Your task to perform on an android device: search for starred emails in the gmail app Image 0: 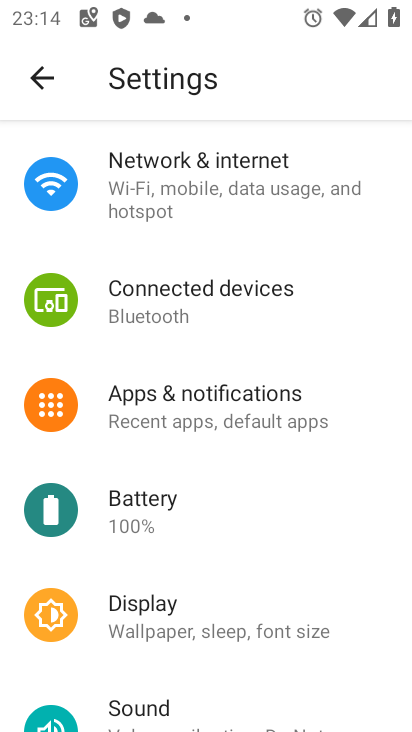
Step 0: press home button
Your task to perform on an android device: search for starred emails in the gmail app Image 1: 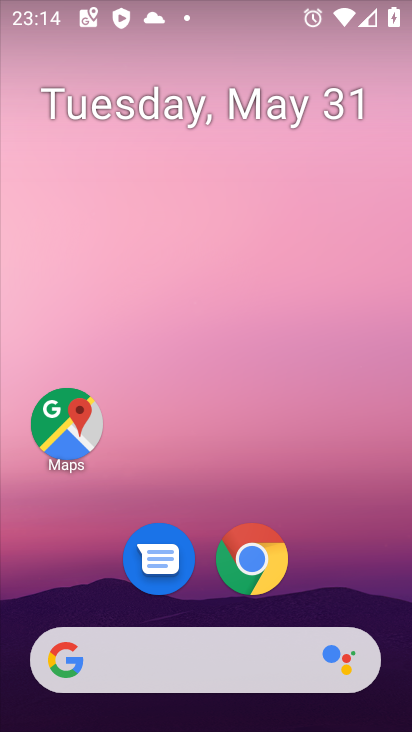
Step 1: drag from (320, 568) to (319, 1)
Your task to perform on an android device: search for starred emails in the gmail app Image 2: 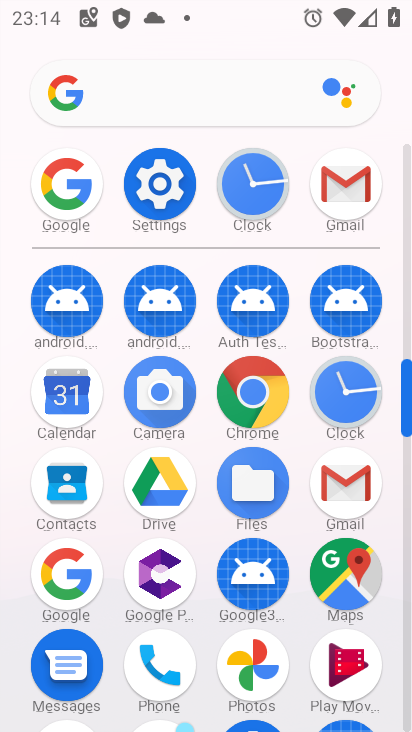
Step 2: click (347, 198)
Your task to perform on an android device: search for starred emails in the gmail app Image 3: 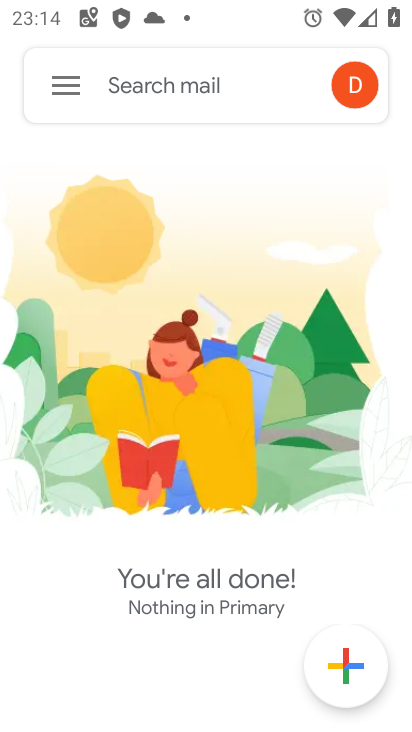
Step 3: click (66, 87)
Your task to perform on an android device: search for starred emails in the gmail app Image 4: 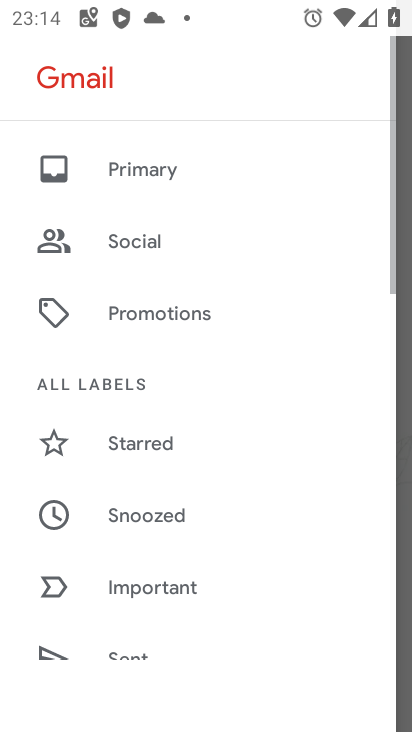
Step 4: click (152, 442)
Your task to perform on an android device: search for starred emails in the gmail app Image 5: 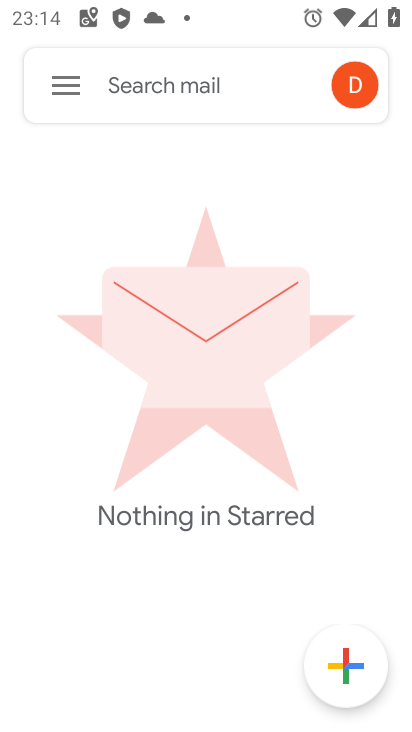
Step 5: task complete